Your task to perform on an android device: Go to ESPN.com Image 0: 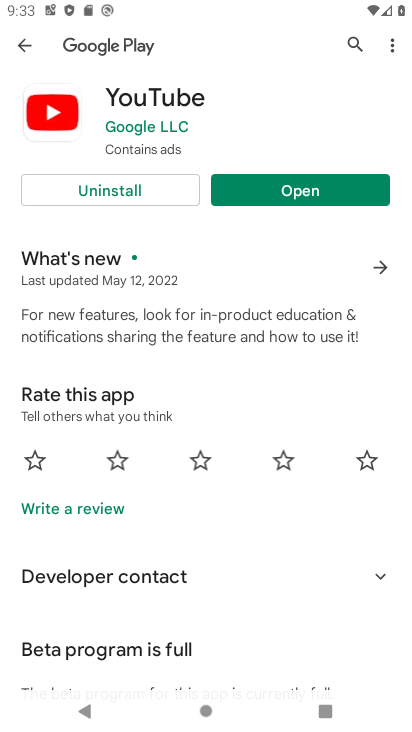
Step 0: press home button
Your task to perform on an android device: Go to ESPN.com Image 1: 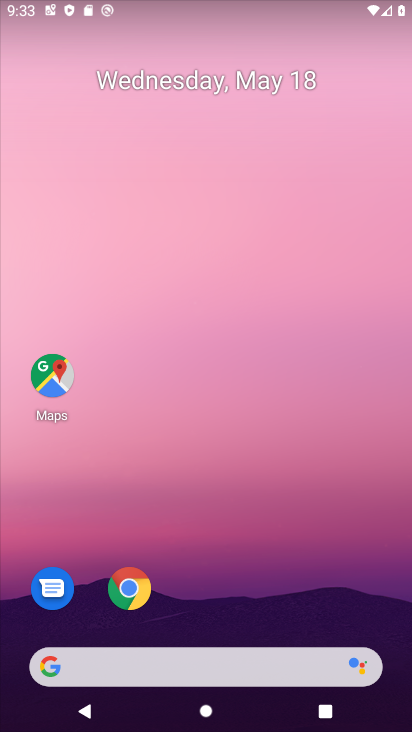
Step 1: drag from (283, 679) to (250, 136)
Your task to perform on an android device: Go to ESPN.com Image 2: 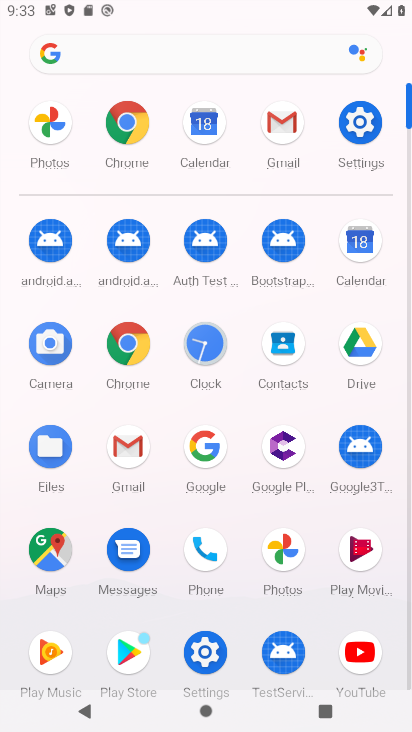
Step 2: click (128, 135)
Your task to perform on an android device: Go to ESPN.com Image 3: 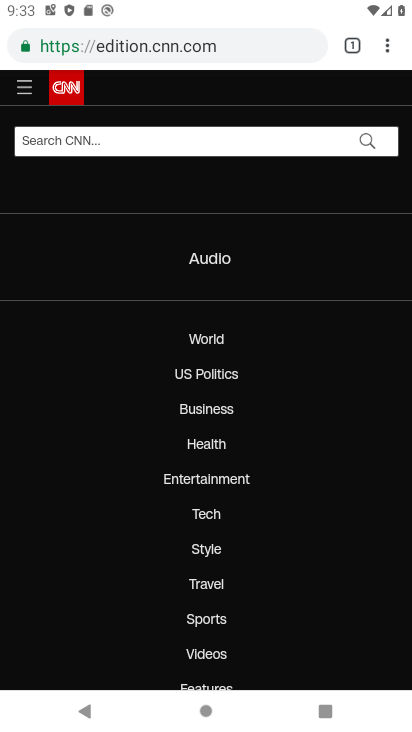
Step 3: click (215, 47)
Your task to perform on an android device: Go to ESPN.com Image 4: 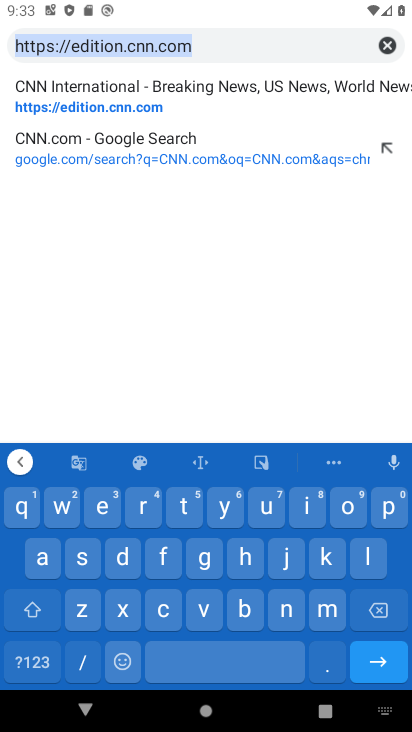
Step 4: click (101, 507)
Your task to perform on an android device: Go to ESPN.com Image 5: 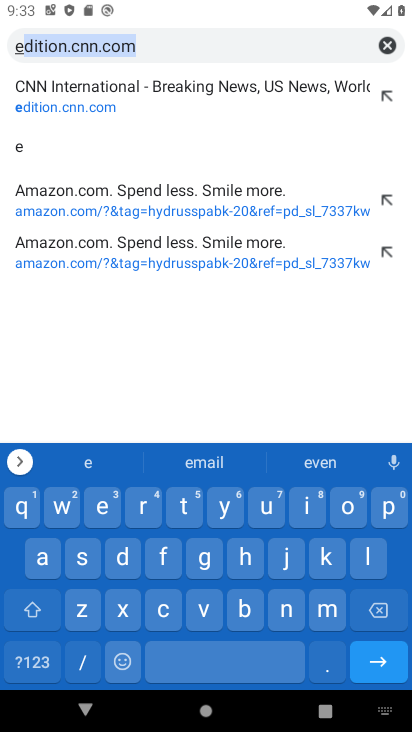
Step 5: click (77, 561)
Your task to perform on an android device: Go to ESPN.com Image 6: 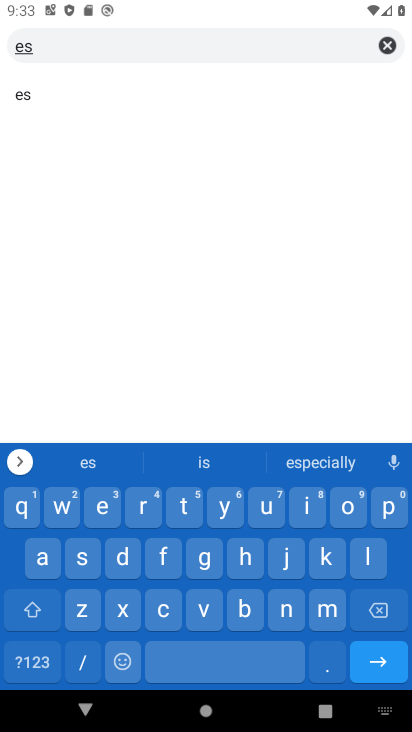
Step 6: click (388, 508)
Your task to perform on an android device: Go to ESPN.com Image 7: 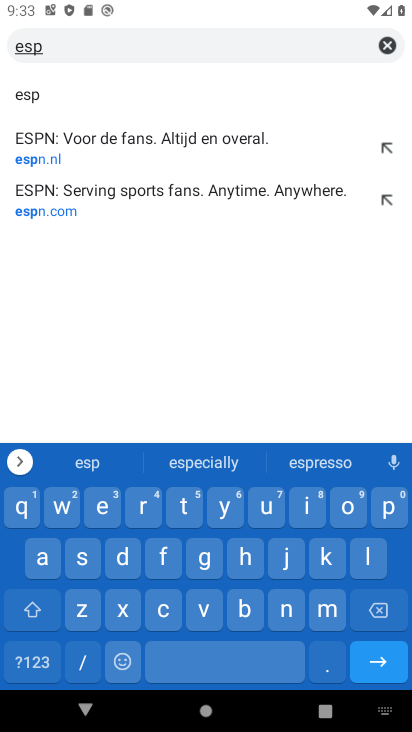
Step 7: click (284, 606)
Your task to perform on an android device: Go to ESPN.com Image 8: 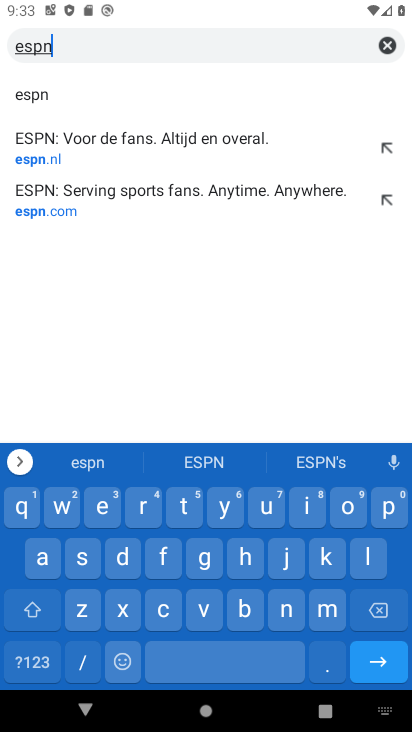
Step 8: click (326, 663)
Your task to perform on an android device: Go to ESPN.com Image 9: 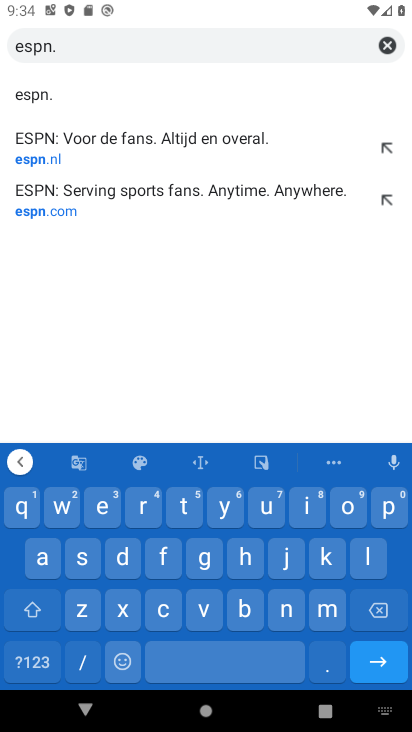
Step 9: click (159, 609)
Your task to perform on an android device: Go to ESPN.com Image 10: 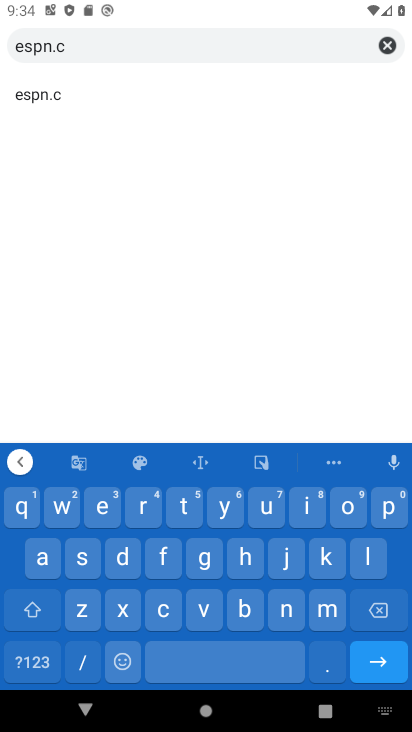
Step 10: click (354, 504)
Your task to perform on an android device: Go to ESPN.com Image 11: 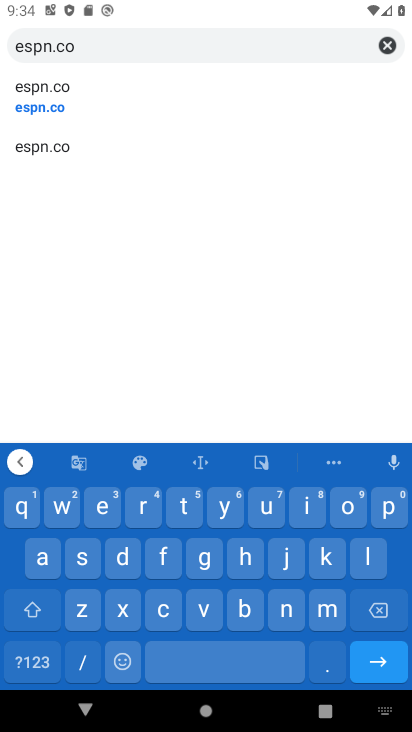
Step 11: click (329, 615)
Your task to perform on an android device: Go to ESPN.com Image 12: 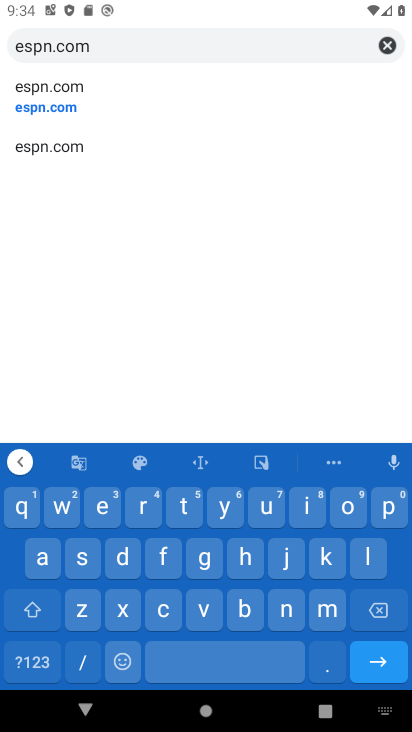
Step 12: click (73, 100)
Your task to perform on an android device: Go to ESPN.com Image 13: 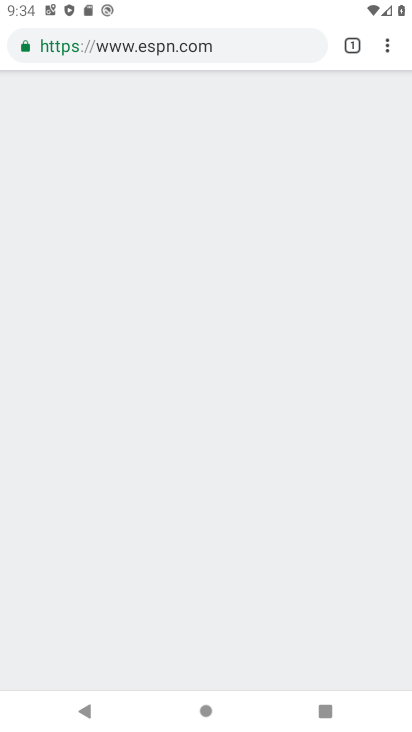
Step 13: click (73, 100)
Your task to perform on an android device: Go to ESPN.com Image 14: 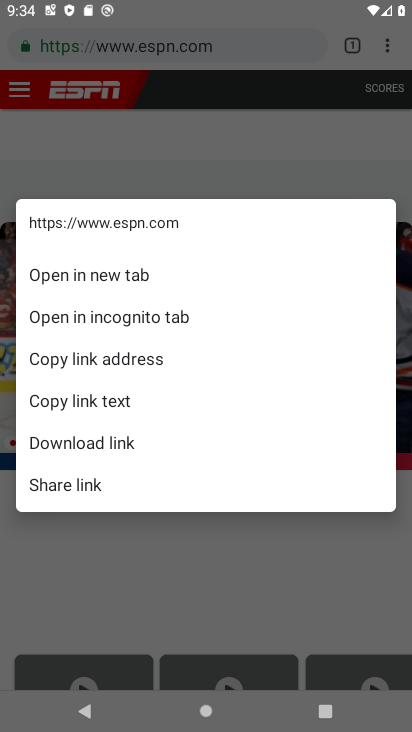
Step 14: click (102, 135)
Your task to perform on an android device: Go to ESPN.com Image 15: 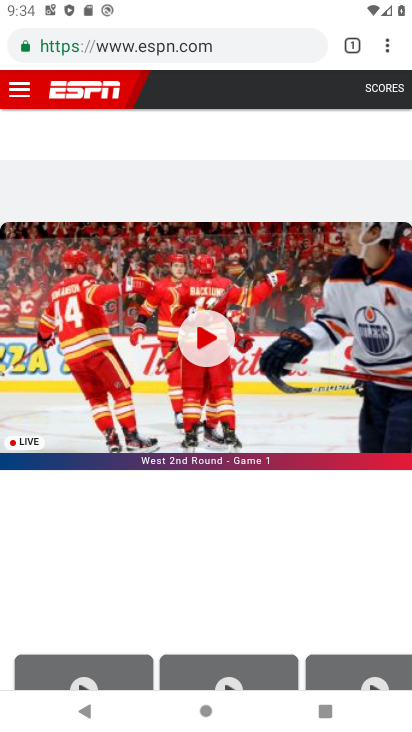
Step 15: task complete